Your task to perform on an android device: Open Yahoo.com Image 0: 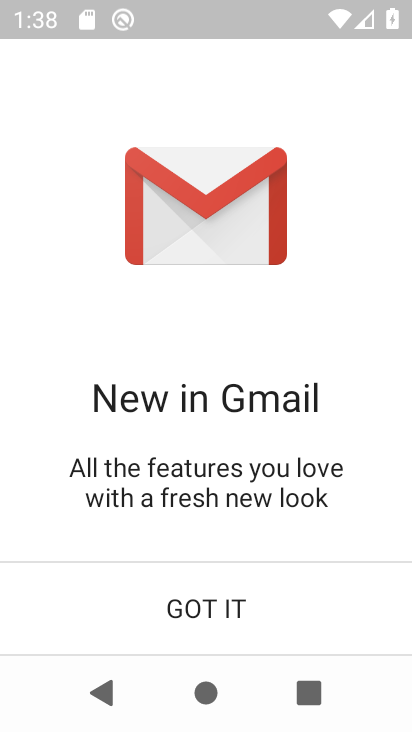
Step 0: click (191, 626)
Your task to perform on an android device: Open Yahoo.com Image 1: 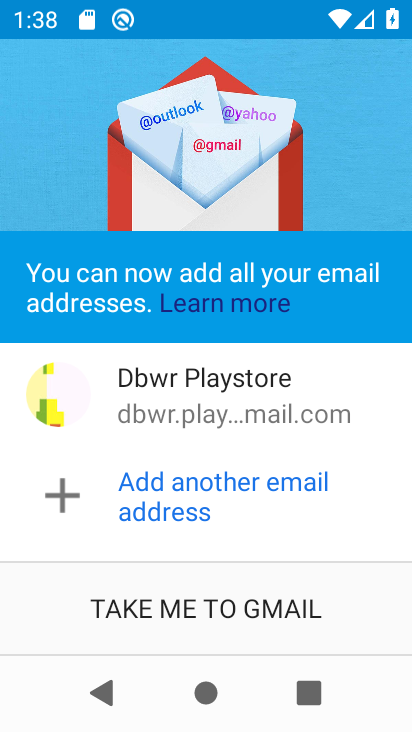
Step 1: click (194, 626)
Your task to perform on an android device: Open Yahoo.com Image 2: 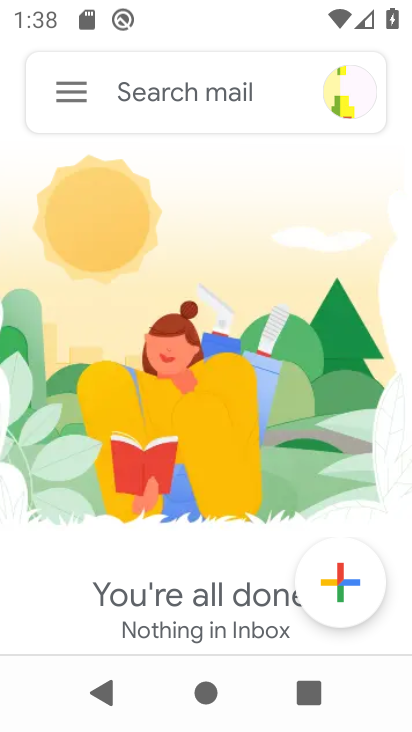
Step 2: press home button
Your task to perform on an android device: Open Yahoo.com Image 3: 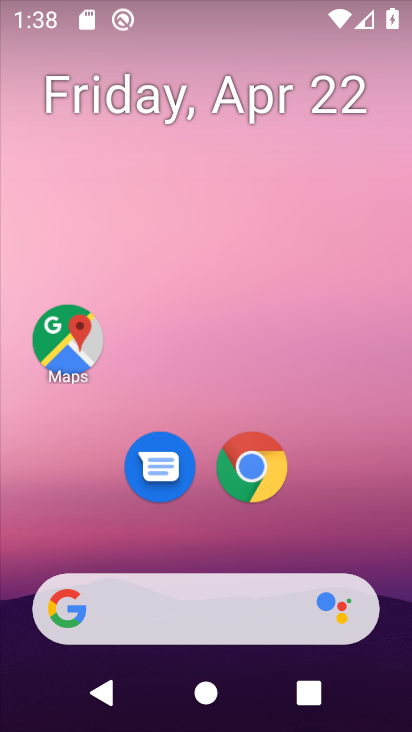
Step 3: click (236, 495)
Your task to perform on an android device: Open Yahoo.com Image 4: 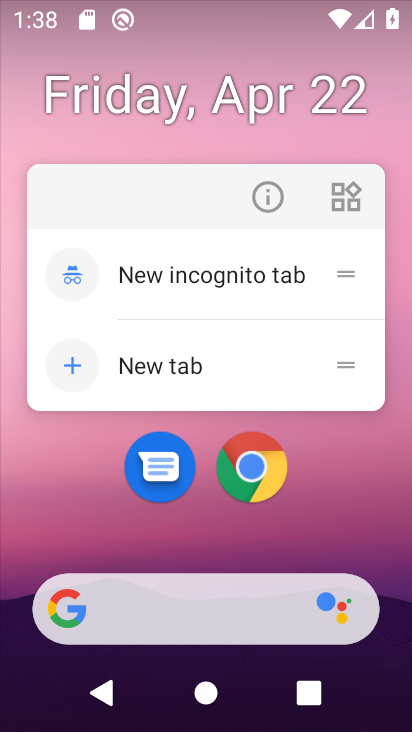
Step 4: click (258, 485)
Your task to perform on an android device: Open Yahoo.com Image 5: 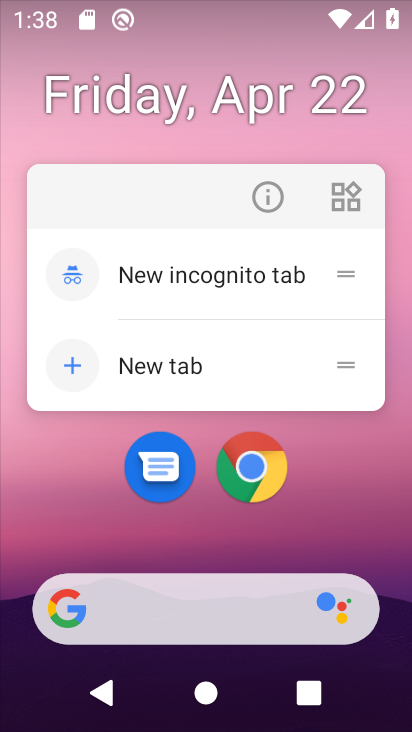
Step 5: click (246, 487)
Your task to perform on an android device: Open Yahoo.com Image 6: 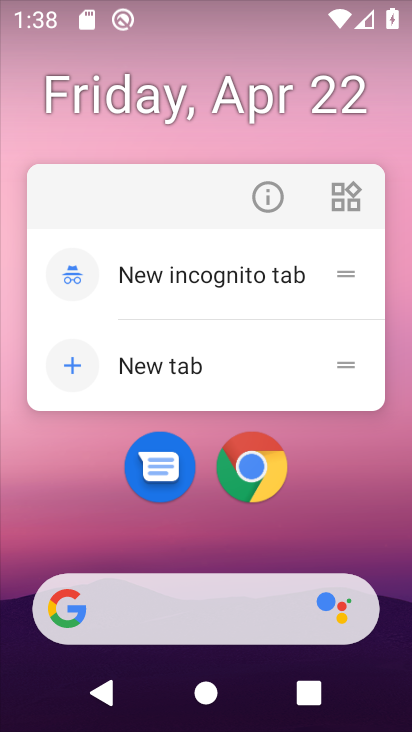
Step 6: click (251, 426)
Your task to perform on an android device: Open Yahoo.com Image 7: 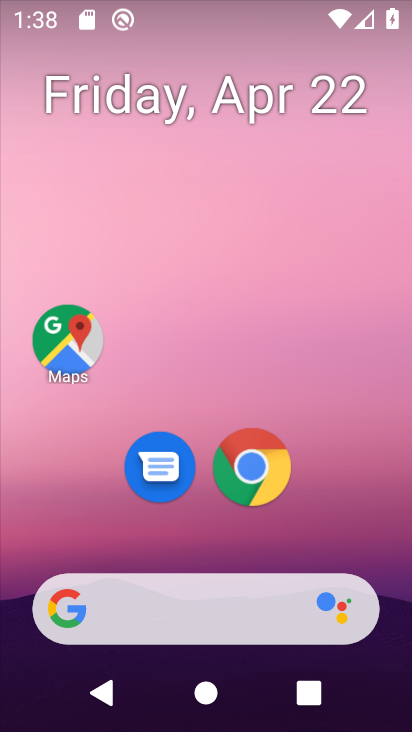
Step 7: click (244, 453)
Your task to perform on an android device: Open Yahoo.com Image 8: 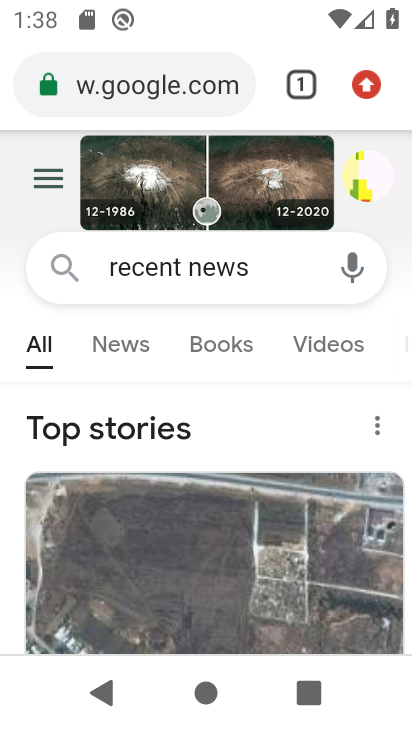
Step 8: click (151, 98)
Your task to perform on an android device: Open Yahoo.com Image 9: 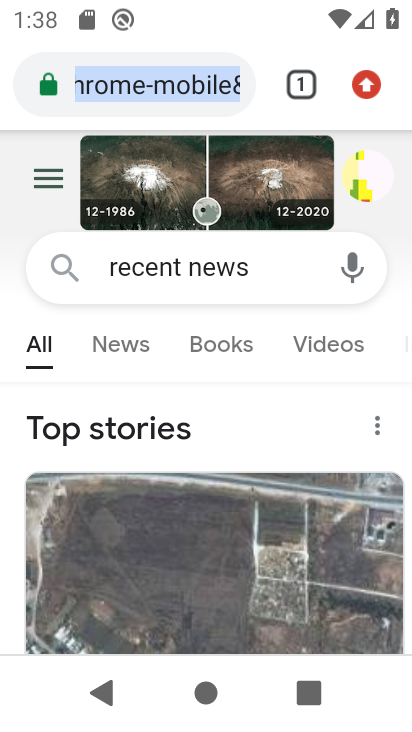
Step 9: type ""
Your task to perform on an android device: Open Yahoo.com Image 10: 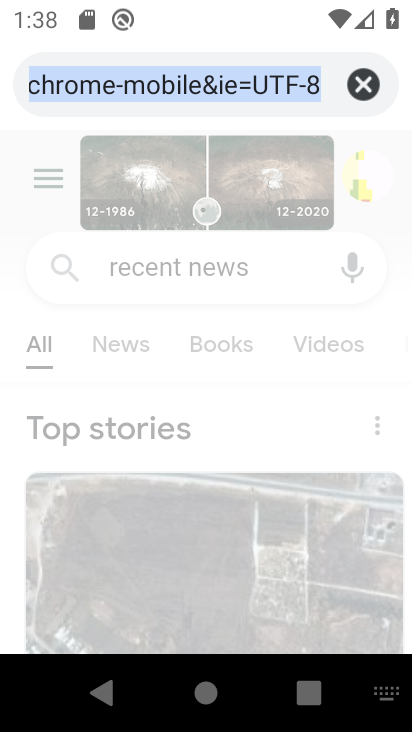
Step 10: type "yahoo.com"
Your task to perform on an android device: Open Yahoo.com Image 11: 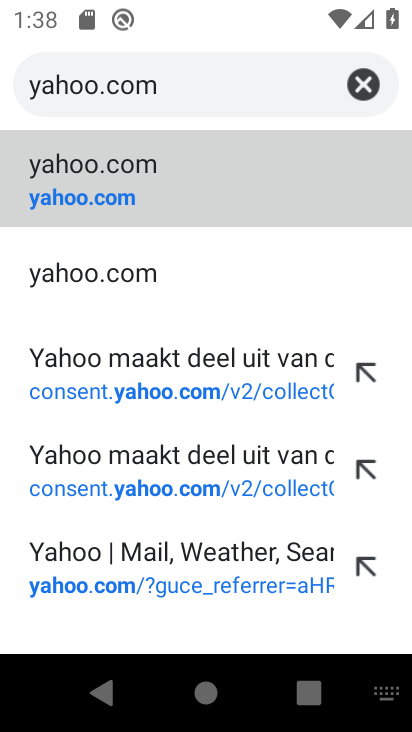
Step 11: click (71, 193)
Your task to perform on an android device: Open Yahoo.com Image 12: 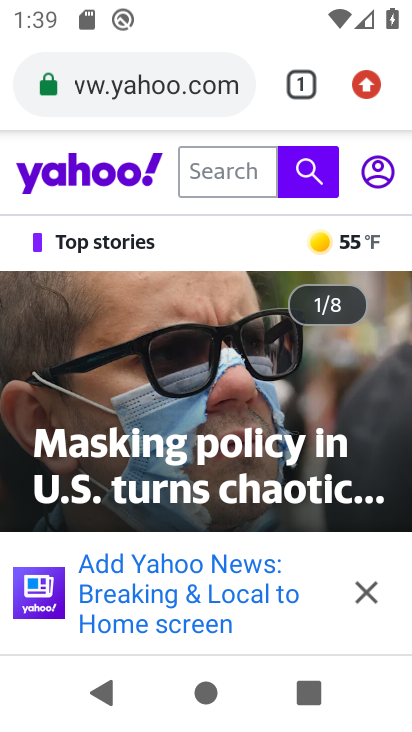
Step 12: task complete